Your task to perform on an android device: Open the Play Movies app and select the watchlist tab. Image 0: 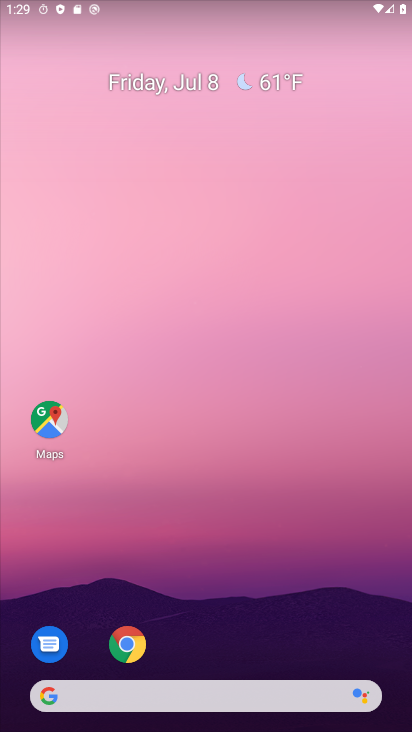
Step 0: click (258, 3)
Your task to perform on an android device: Open the Play Movies app and select the watchlist tab. Image 1: 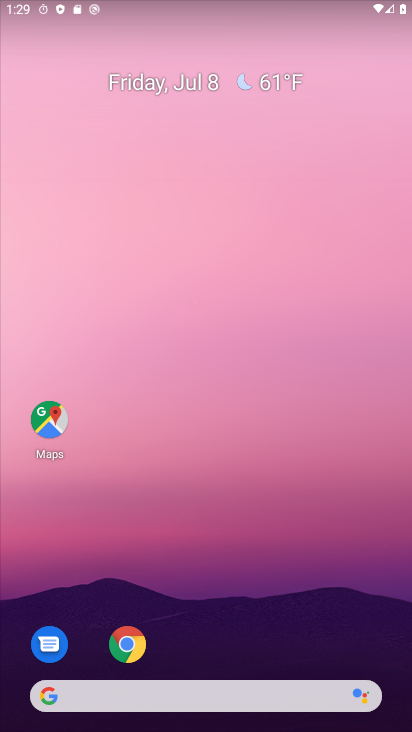
Step 1: drag from (202, 610) to (121, 50)
Your task to perform on an android device: Open the Play Movies app and select the watchlist tab. Image 2: 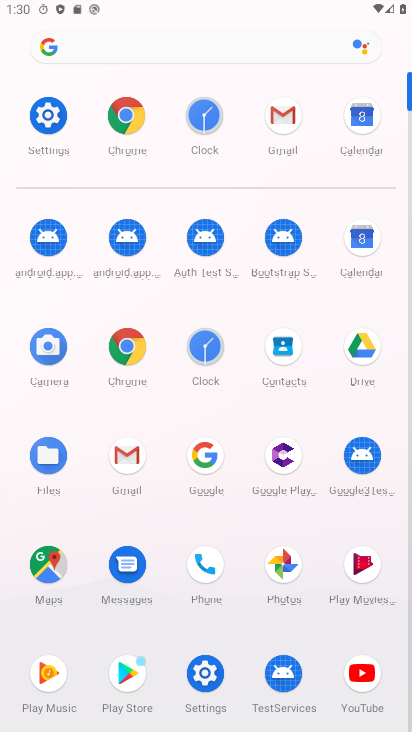
Step 2: click (350, 575)
Your task to perform on an android device: Open the Play Movies app and select the watchlist tab. Image 3: 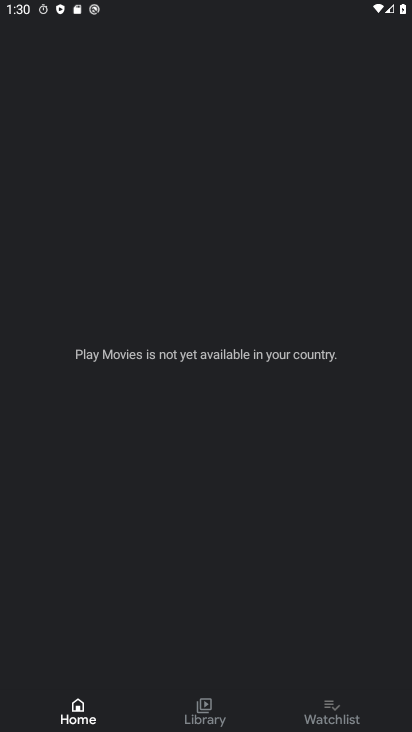
Step 3: click (323, 715)
Your task to perform on an android device: Open the Play Movies app and select the watchlist tab. Image 4: 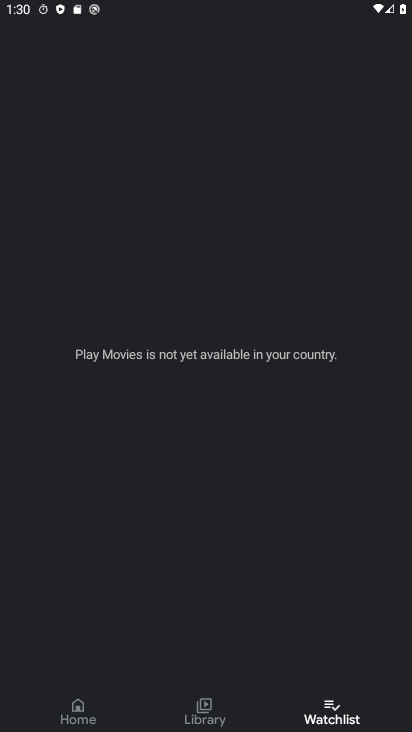
Step 4: task complete